Your task to perform on an android device: choose inbox layout in the gmail app Image 0: 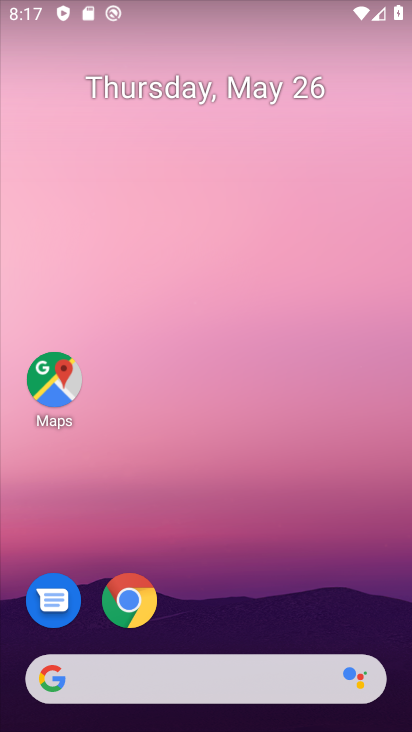
Step 0: drag from (230, 611) to (215, 88)
Your task to perform on an android device: choose inbox layout in the gmail app Image 1: 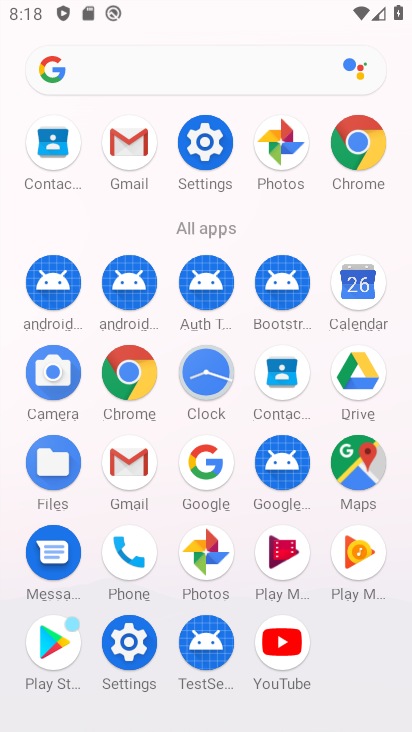
Step 1: click (140, 140)
Your task to perform on an android device: choose inbox layout in the gmail app Image 2: 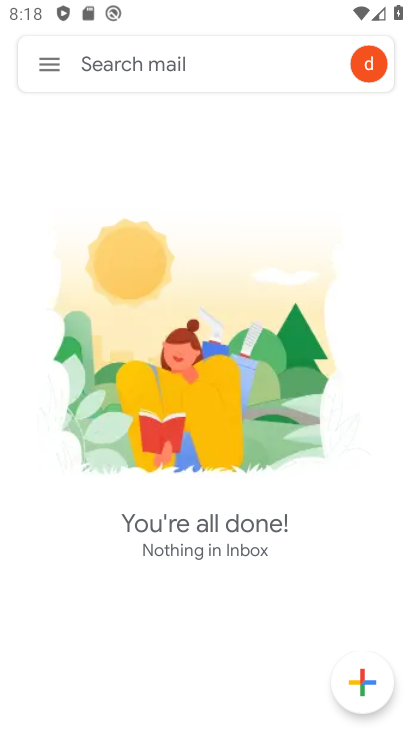
Step 2: click (59, 79)
Your task to perform on an android device: choose inbox layout in the gmail app Image 3: 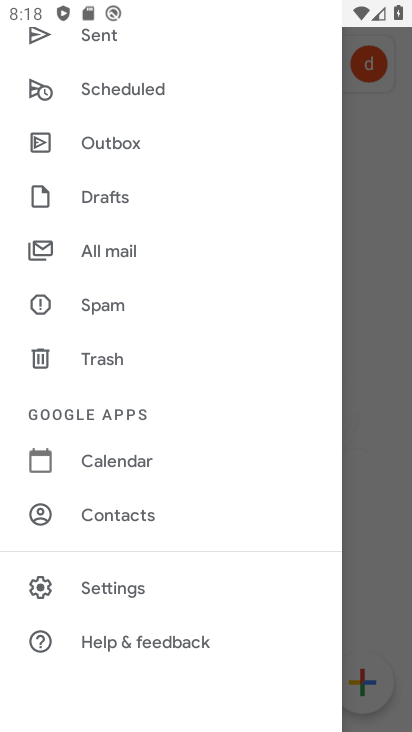
Step 3: click (187, 601)
Your task to perform on an android device: choose inbox layout in the gmail app Image 4: 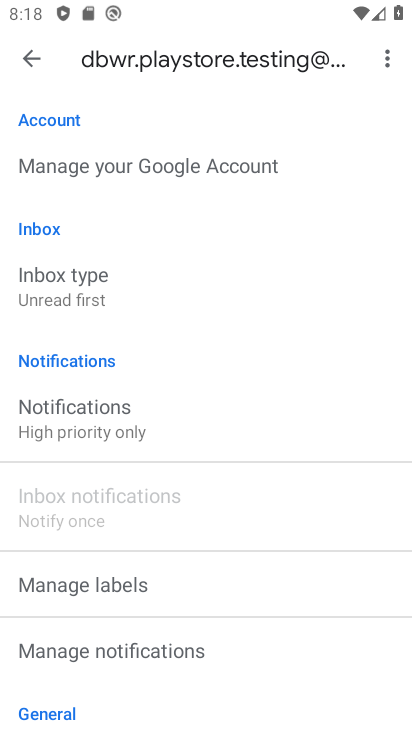
Step 4: click (95, 281)
Your task to perform on an android device: choose inbox layout in the gmail app Image 5: 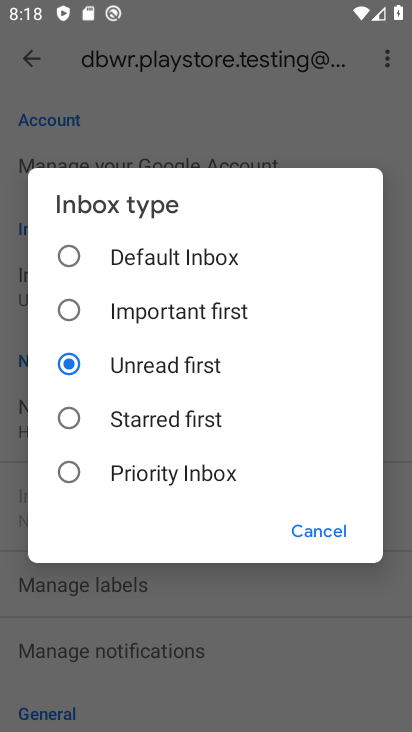
Step 5: click (170, 307)
Your task to perform on an android device: choose inbox layout in the gmail app Image 6: 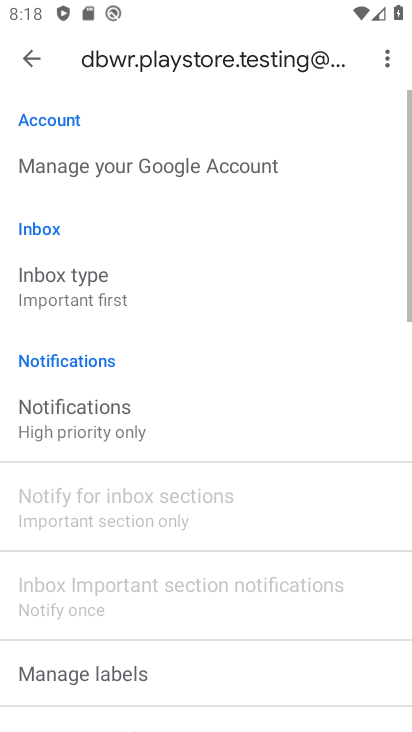
Step 6: task complete